Your task to perform on an android device: Open Google Chrome and open the bookmarks view Image 0: 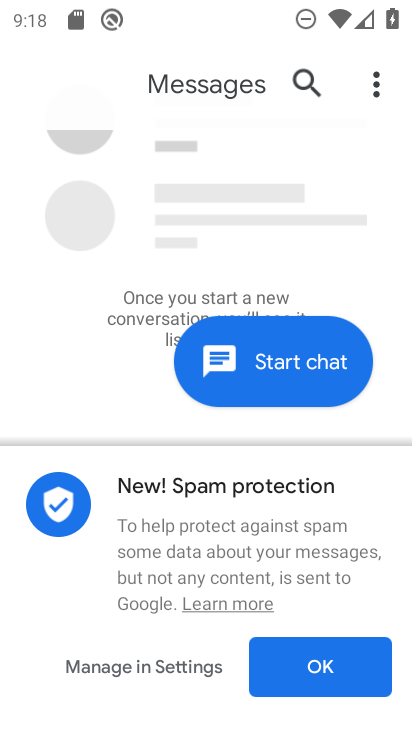
Step 0: press home button
Your task to perform on an android device: Open Google Chrome and open the bookmarks view Image 1: 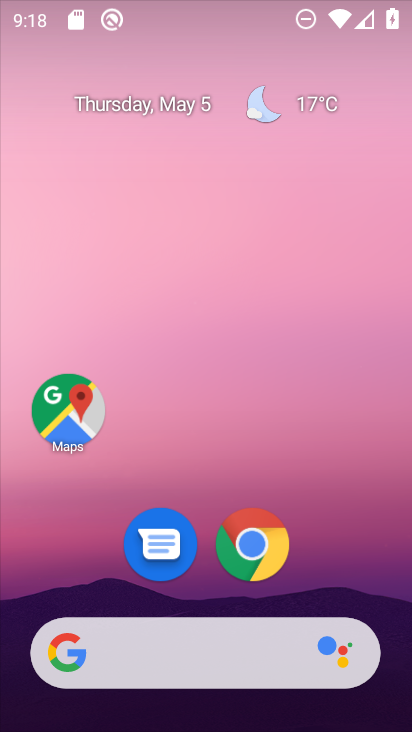
Step 1: drag from (394, 665) to (312, 69)
Your task to perform on an android device: Open Google Chrome and open the bookmarks view Image 2: 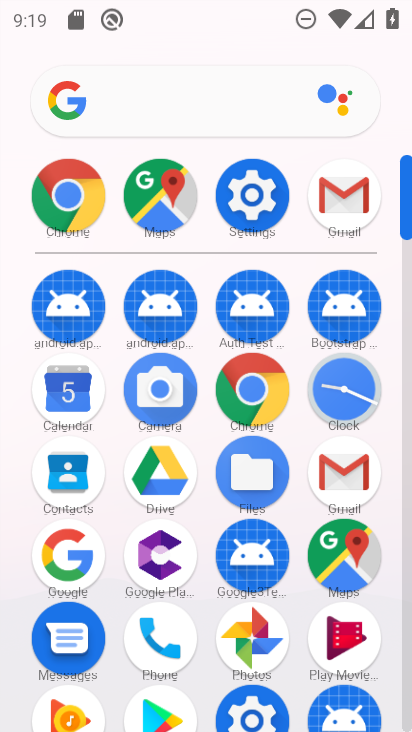
Step 2: click (252, 394)
Your task to perform on an android device: Open Google Chrome and open the bookmarks view Image 3: 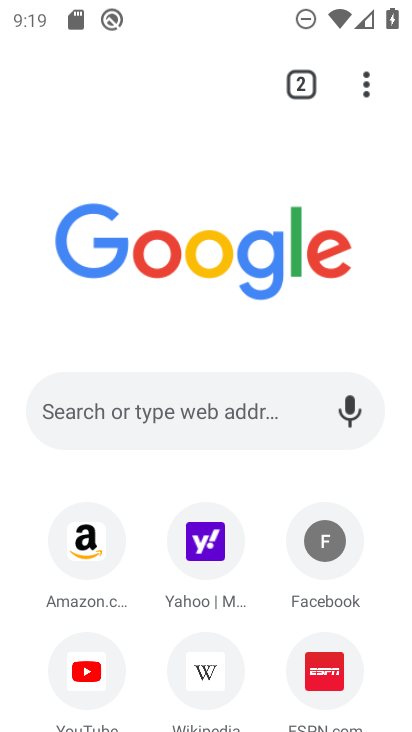
Step 3: click (359, 77)
Your task to perform on an android device: Open Google Chrome and open the bookmarks view Image 4: 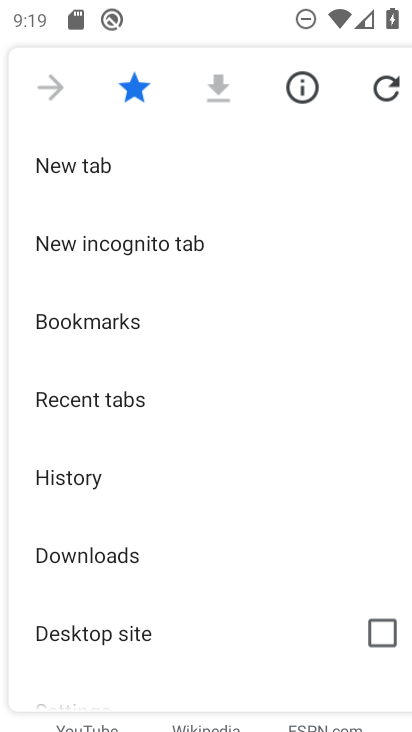
Step 4: click (204, 317)
Your task to perform on an android device: Open Google Chrome and open the bookmarks view Image 5: 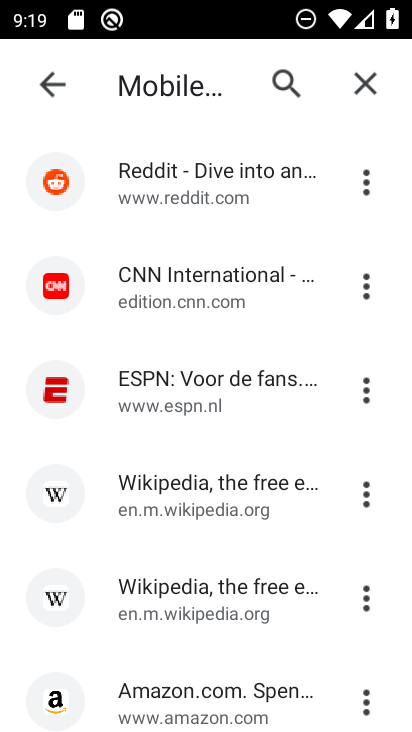
Step 5: task complete